Your task to perform on an android device: toggle wifi Image 0: 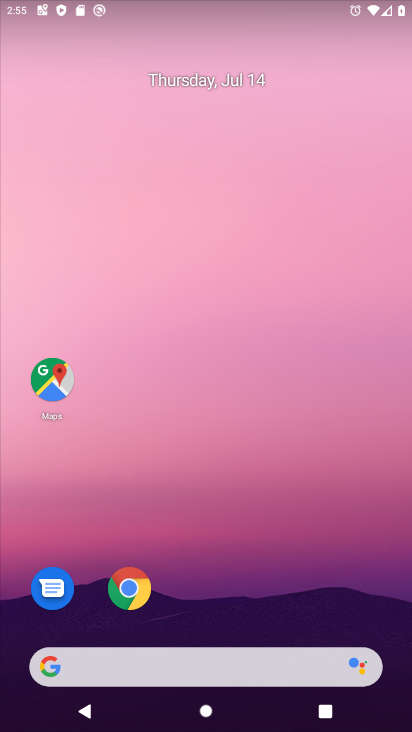
Step 0: drag from (106, 595) to (115, 65)
Your task to perform on an android device: toggle wifi Image 1: 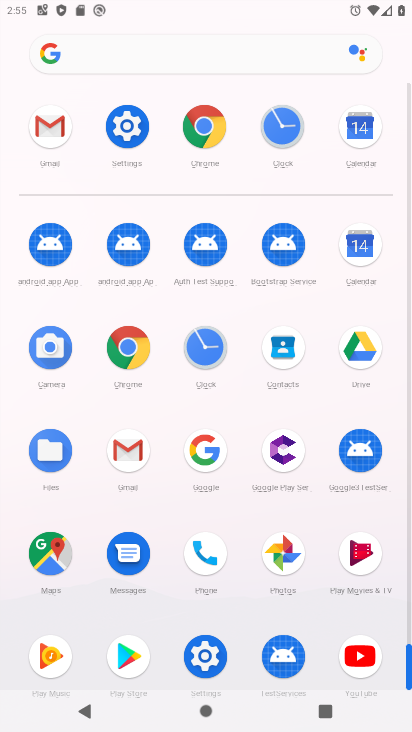
Step 1: click (125, 115)
Your task to perform on an android device: toggle wifi Image 2: 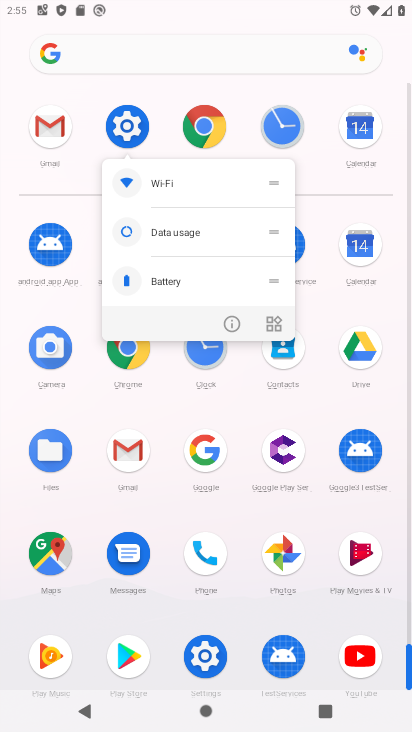
Step 2: click (127, 112)
Your task to perform on an android device: toggle wifi Image 3: 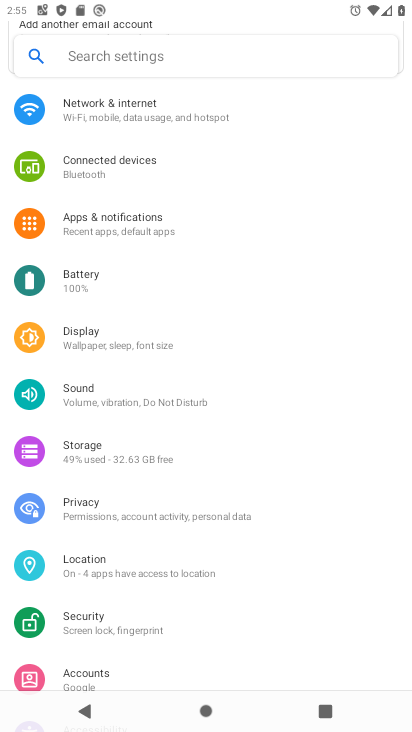
Step 3: drag from (120, 114) to (111, 408)
Your task to perform on an android device: toggle wifi Image 4: 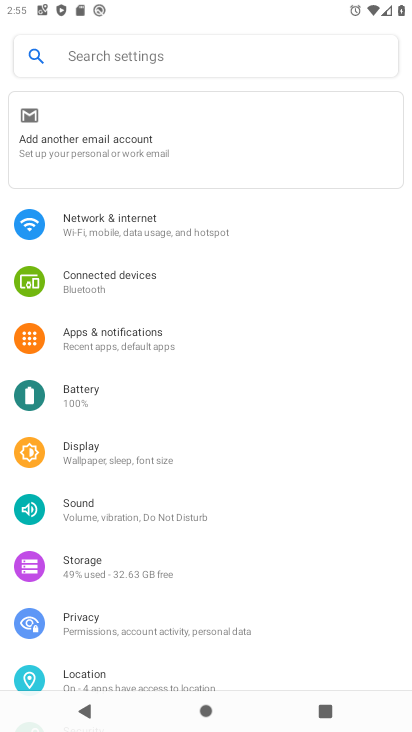
Step 4: click (111, 212)
Your task to perform on an android device: toggle wifi Image 5: 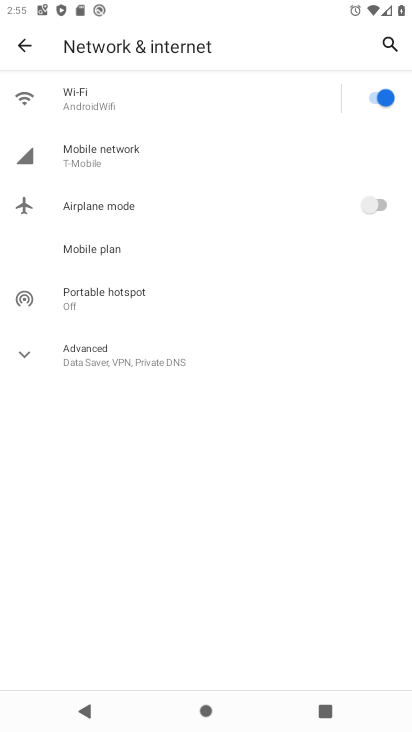
Step 5: click (373, 90)
Your task to perform on an android device: toggle wifi Image 6: 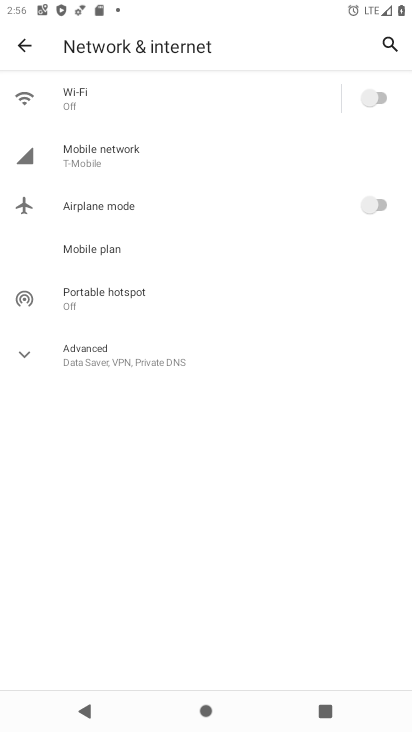
Step 6: task complete